Your task to perform on an android device: open a bookmark in the chrome app Image 0: 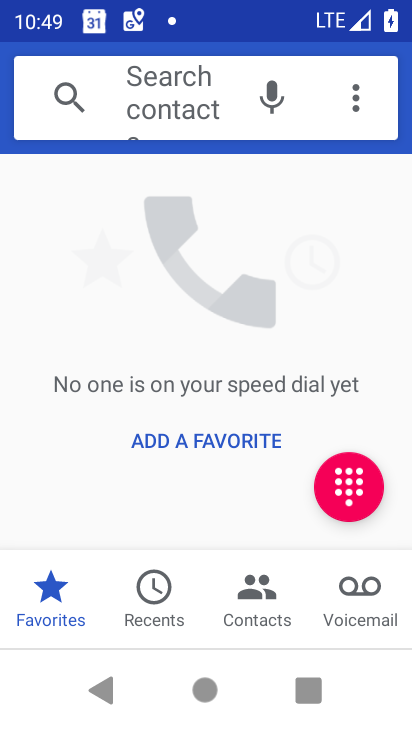
Step 0: press home button
Your task to perform on an android device: open a bookmark in the chrome app Image 1: 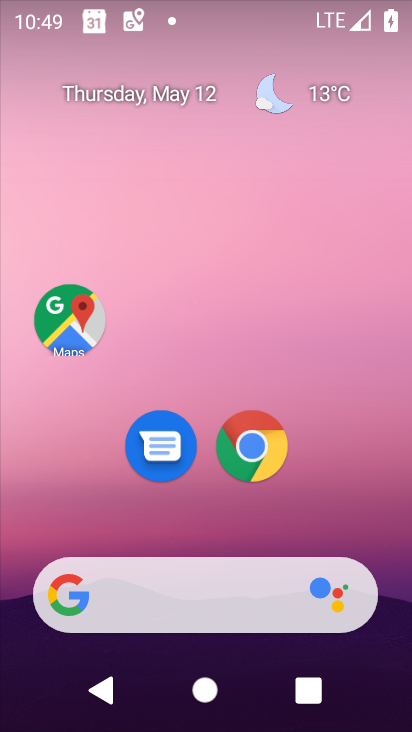
Step 1: drag from (303, 573) to (281, 110)
Your task to perform on an android device: open a bookmark in the chrome app Image 2: 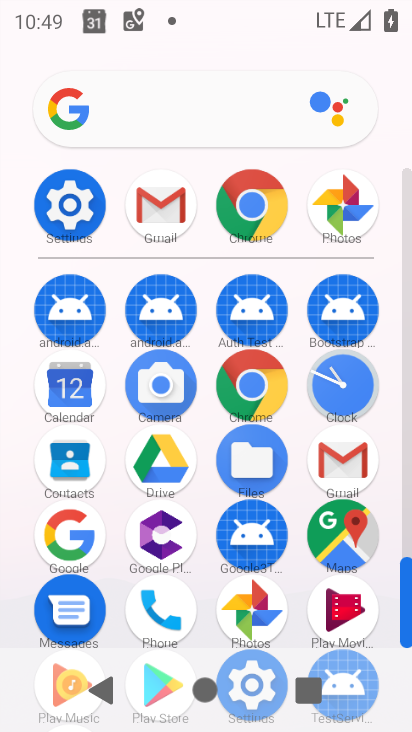
Step 2: click (256, 384)
Your task to perform on an android device: open a bookmark in the chrome app Image 3: 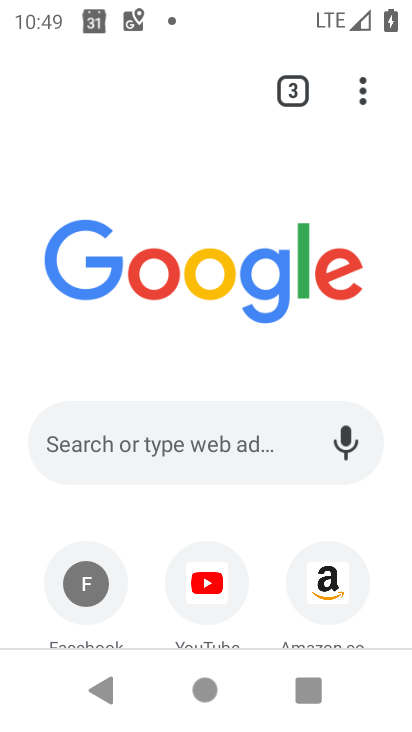
Step 3: task complete